Your task to perform on an android device: What's on my calendar tomorrow? Image 0: 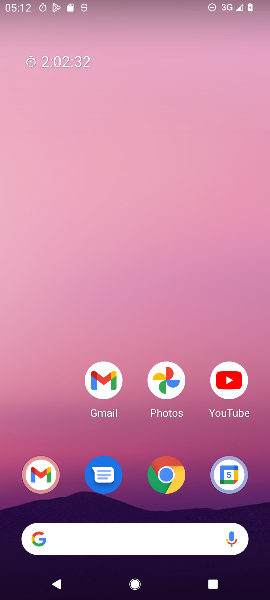
Step 0: drag from (63, 445) to (64, 203)
Your task to perform on an android device: What's on my calendar tomorrow? Image 1: 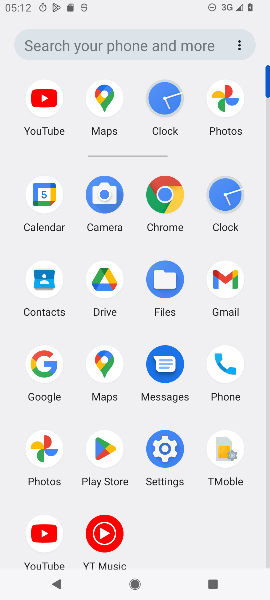
Step 1: click (49, 193)
Your task to perform on an android device: What's on my calendar tomorrow? Image 2: 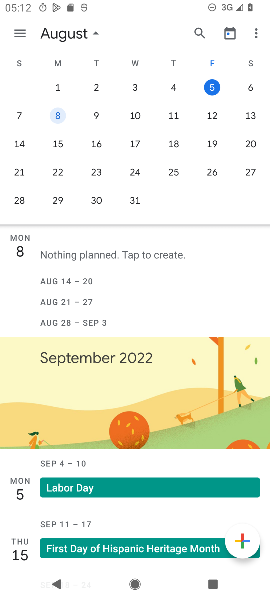
Step 2: click (251, 88)
Your task to perform on an android device: What's on my calendar tomorrow? Image 3: 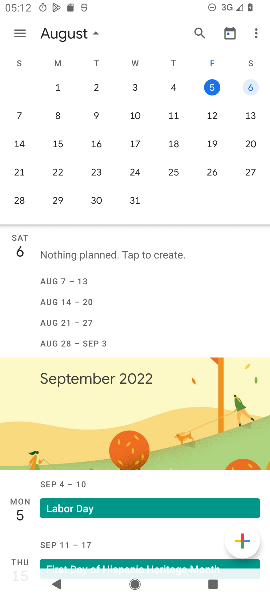
Step 3: task complete